Your task to perform on an android device: Set the phone to "Do not disturb". Image 0: 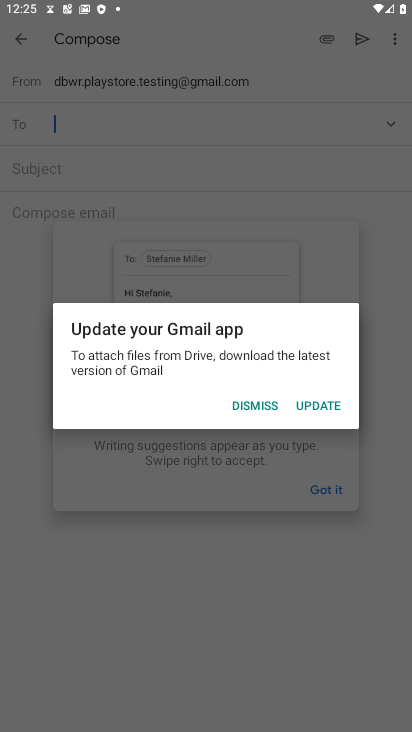
Step 0: press back button
Your task to perform on an android device: Set the phone to "Do not disturb". Image 1: 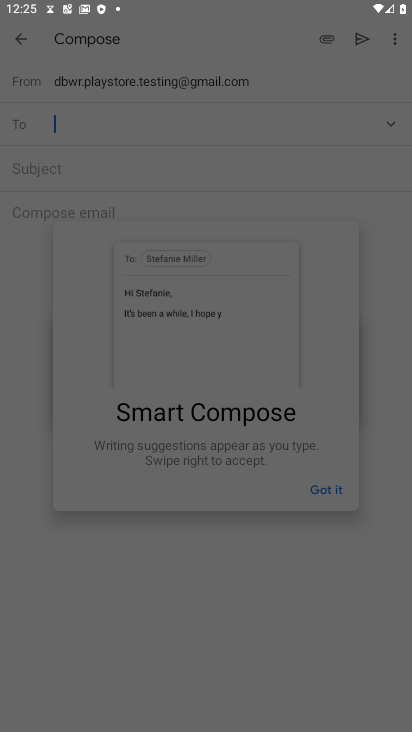
Step 1: press back button
Your task to perform on an android device: Set the phone to "Do not disturb". Image 2: 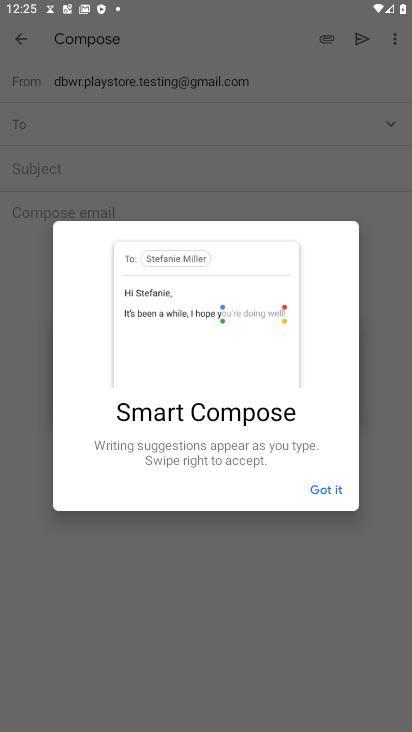
Step 2: press home button
Your task to perform on an android device: Set the phone to "Do not disturb". Image 3: 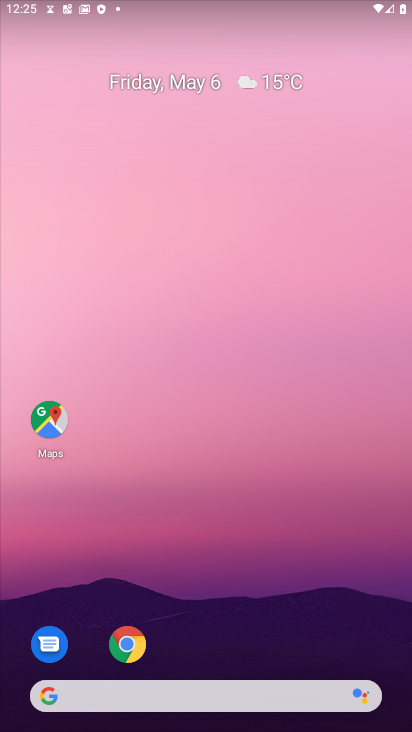
Step 3: drag from (276, 582) to (234, 4)
Your task to perform on an android device: Set the phone to "Do not disturb". Image 4: 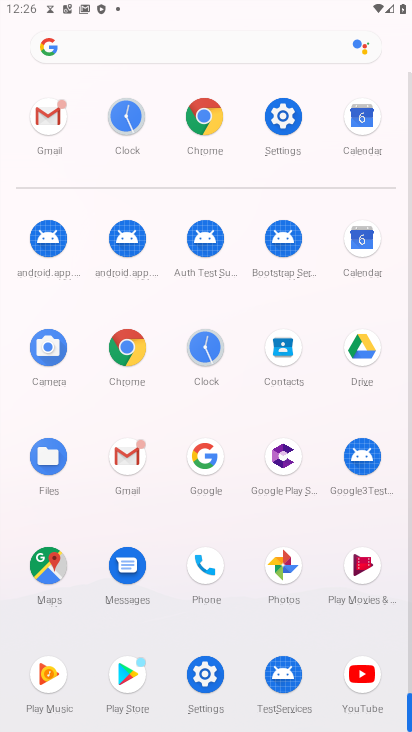
Step 4: drag from (14, 486) to (9, 191)
Your task to perform on an android device: Set the phone to "Do not disturb". Image 5: 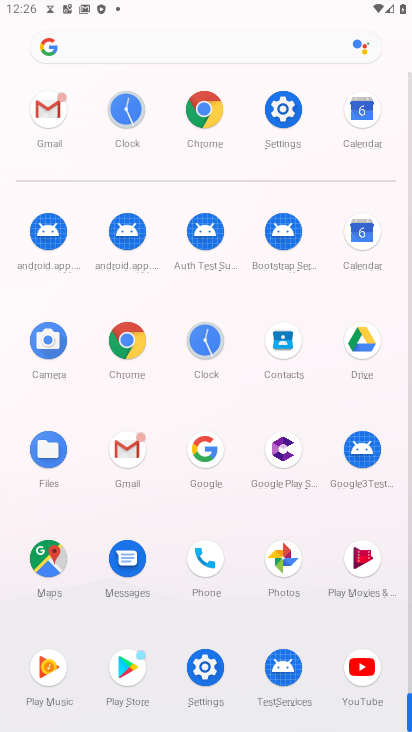
Step 5: click (280, 106)
Your task to perform on an android device: Set the phone to "Do not disturb". Image 6: 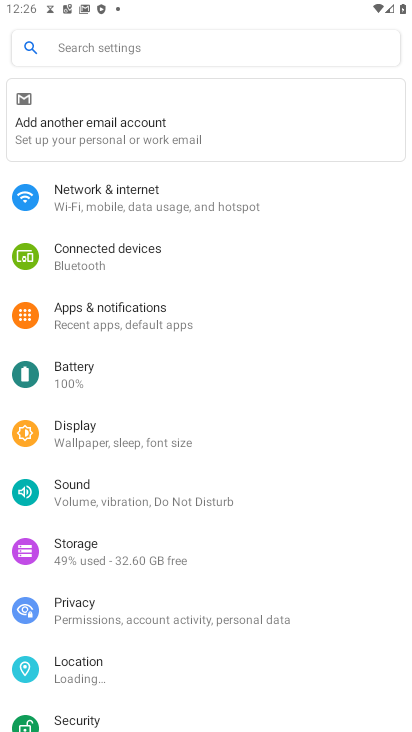
Step 6: click (213, 491)
Your task to perform on an android device: Set the phone to "Do not disturb". Image 7: 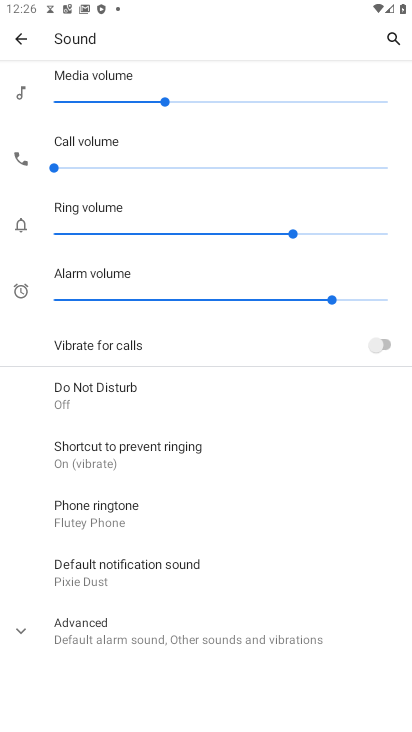
Step 7: drag from (238, 602) to (260, 172)
Your task to perform on an android device: Set the phone to "Do not disturb". Image 8: 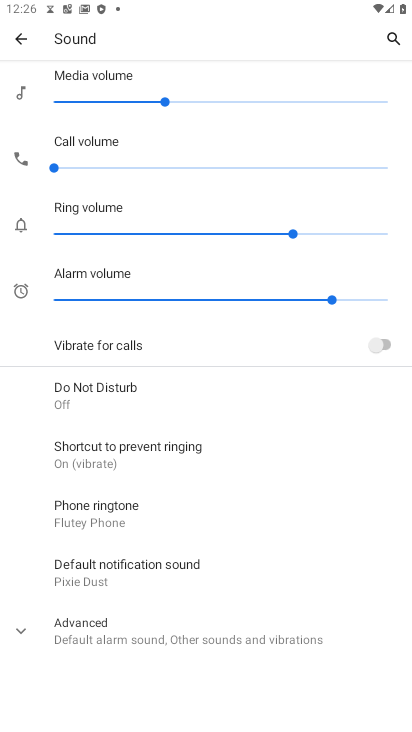
Step 8: click (118, 390)
Your task to perform on an android device: Set the phone to "Do not disturb". Image 9: 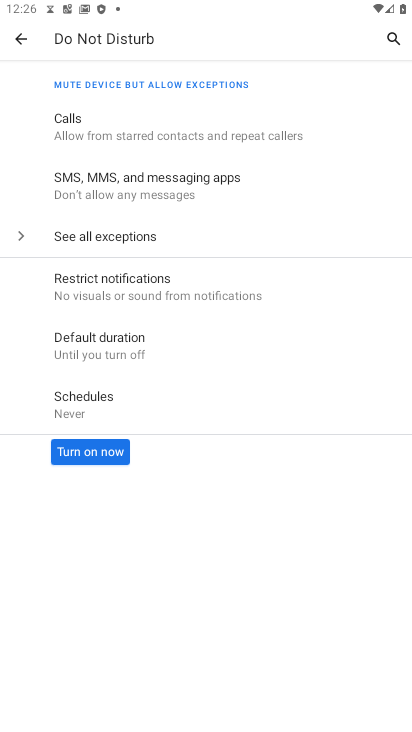
Step 9: click (94, 454)
Your task to perform on an android device: Set the phone to "Do not disturb". Image 10: 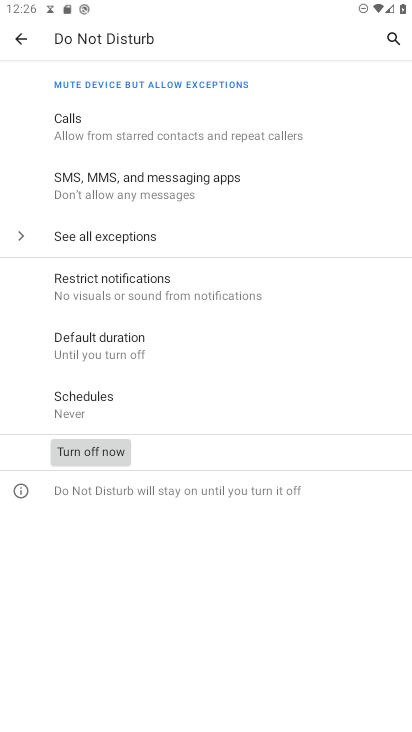
Step 10: task complete